Your task to perform on an android device: turn smart compose on in the gmail app Image 0: 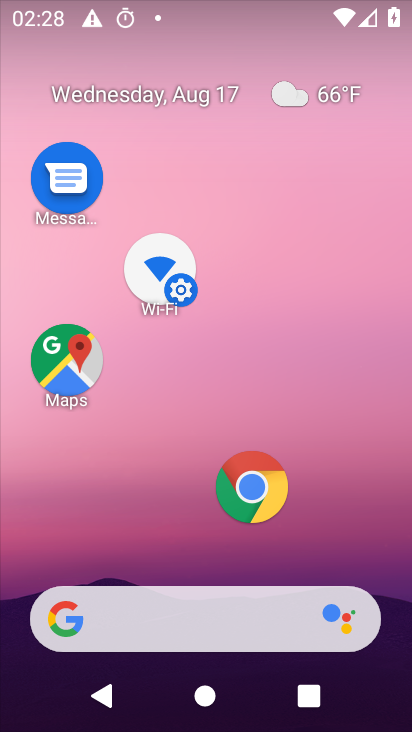
Step 0: drag from (327, 561) to (262, 63)
Your task to perform on an android device: turn smart compose on in the gmail app Image 1: 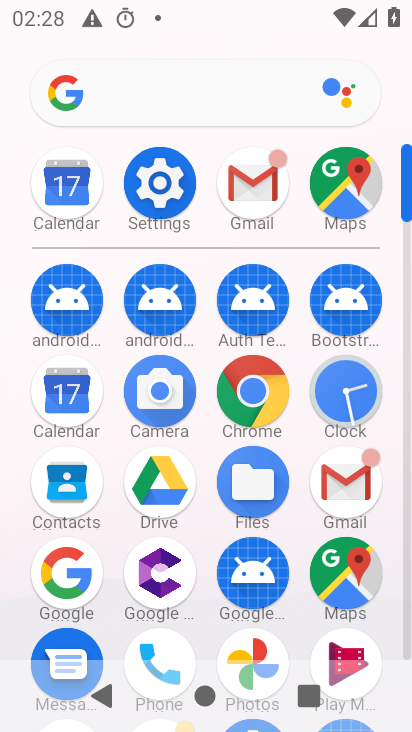
Step 1: click (244, 184)
Your task to perform on an android device: turn smart compose on in the gmail app Image 2: 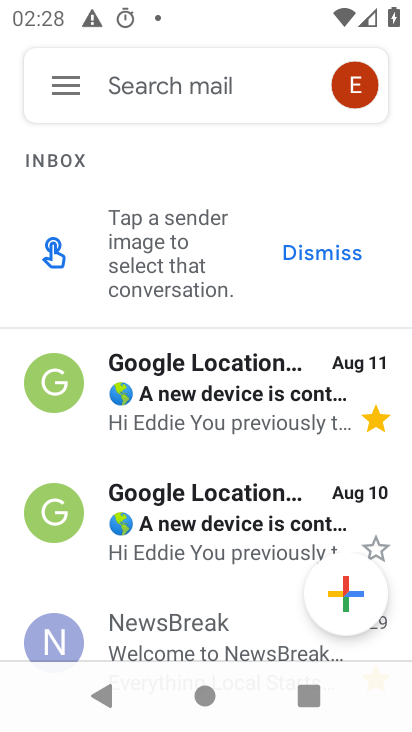
Step 2: click (52, 84)
Your task to perform on an android device: turn smart compose on in the gmail app Image 3: 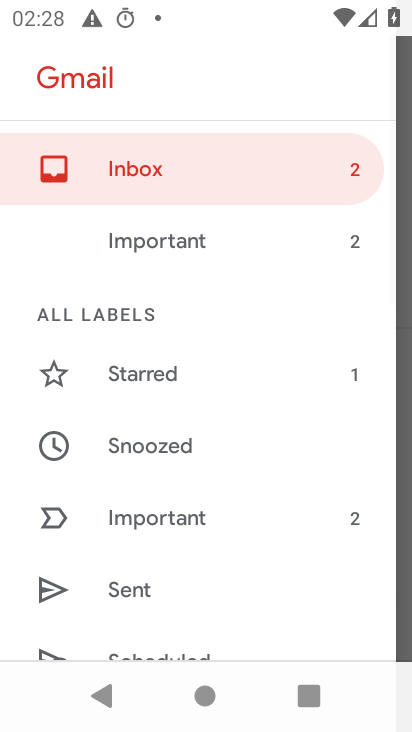
Step 3: drag from (256, 583) to (190, 0)
Your task to perform on an android device: turn smart compose on in the gmail app Image 4: 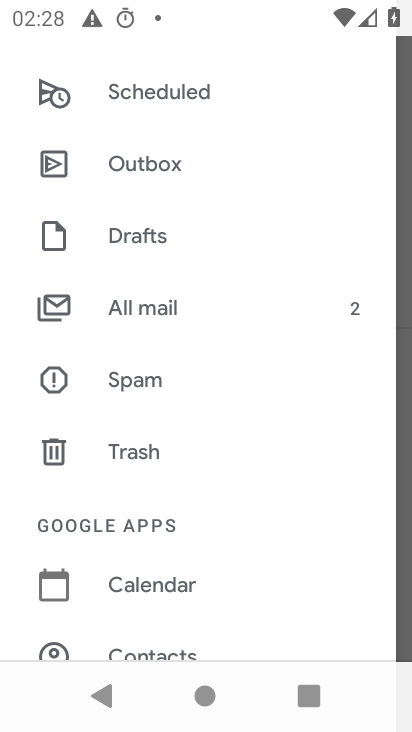
Step 4: drag from (261, 568) to (203, 181)
Your task to perform on an android device: turn smart compose on in the gmail app Image 5: 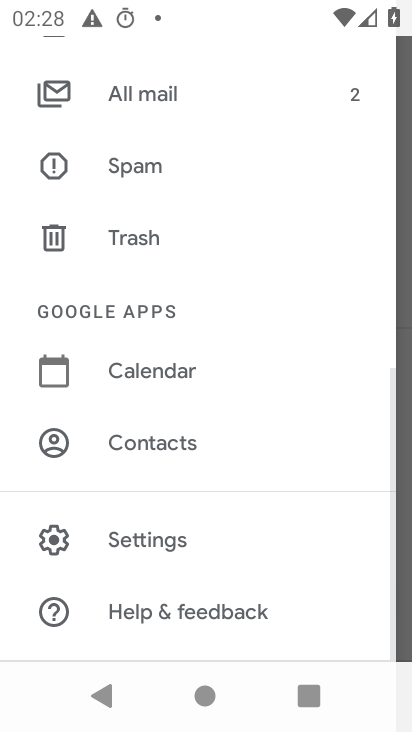
Step 5: click (154, 536)
Your task to perform on an android device: turn smart compose on in the gmail app Image 6: 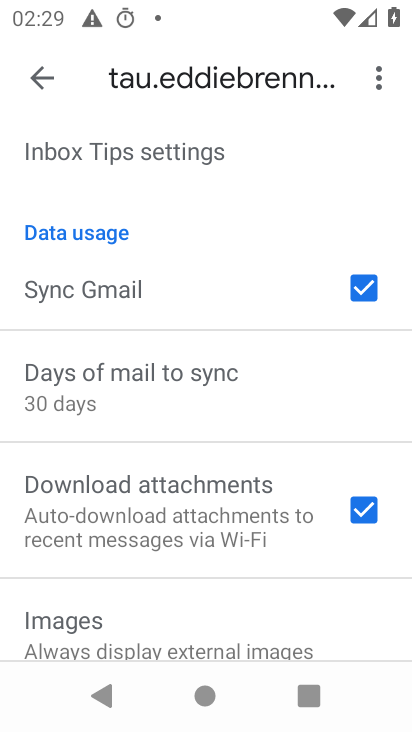
Step 6: task complete